Your task to perform on an android device: change your default location settings in chrome Image 0: 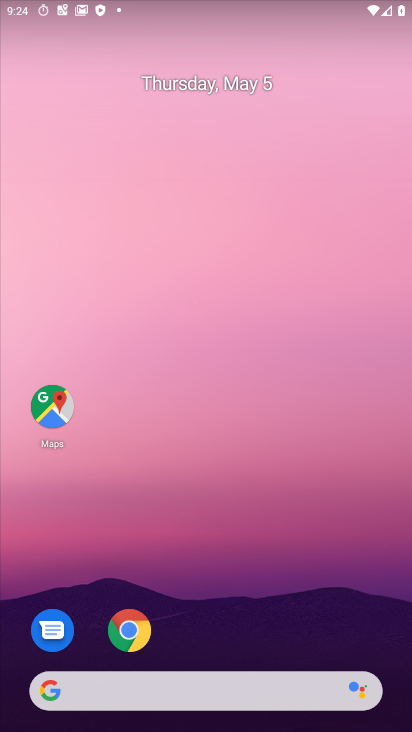
Step 0: click (135, 622)
Your task to perform on an android device: change your default location settings in chrome Image 1: 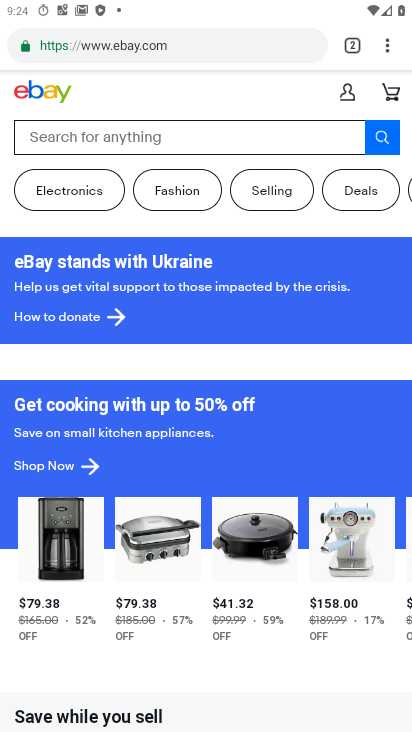
Step 1: drag from (389, 41) to (232, 554)
Your task to perform on an android device: change your default location settings in chrome Image 2: 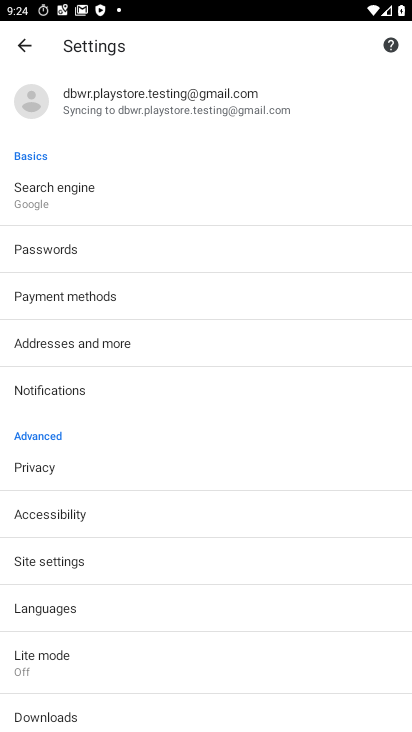
Step 2: click (28, 567)
Your task to perform on an android device: change your default location settings in chrome Image 3: 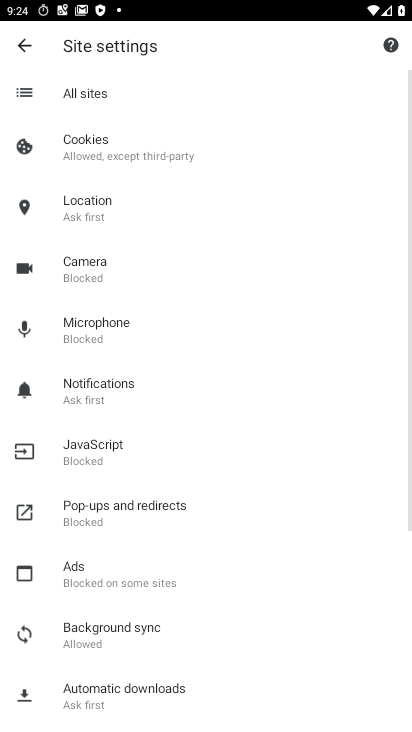
Step 3: click (79, 204)
Your task to perform on an android device: change your default location settings in chrome Image 4: 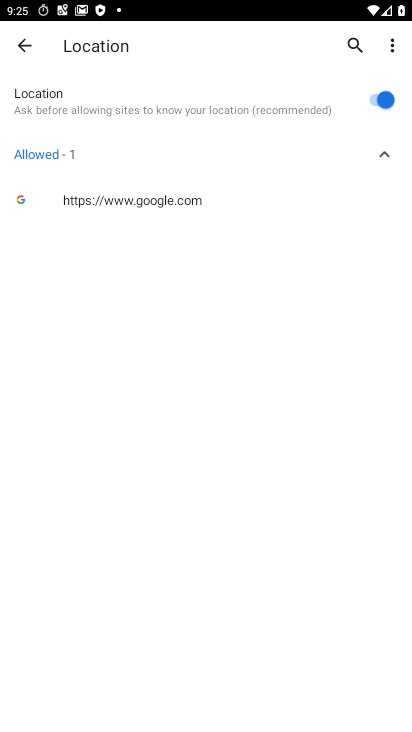
Step 4: click (382, 100)
Your task to perform on an android device: change your default location settings in chrome Image 5: 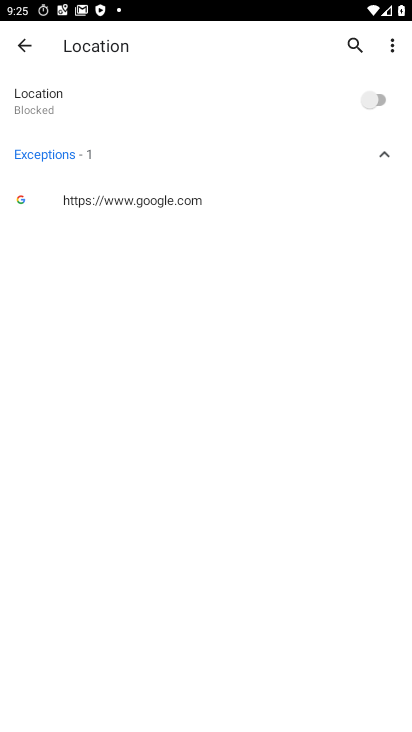
Step 5: task complete